Your task to perform on an android device: turn off notifications settings in the gmail app Image 0: 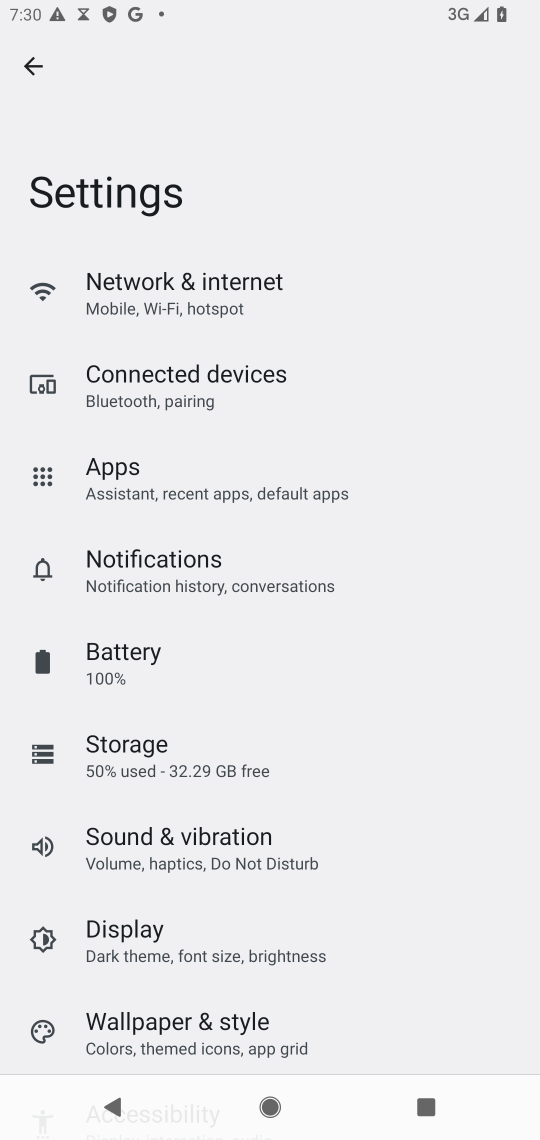
Step 0: press home button
Your task to perform on an android device: turn off notifications settings in the gmail app Image 1: 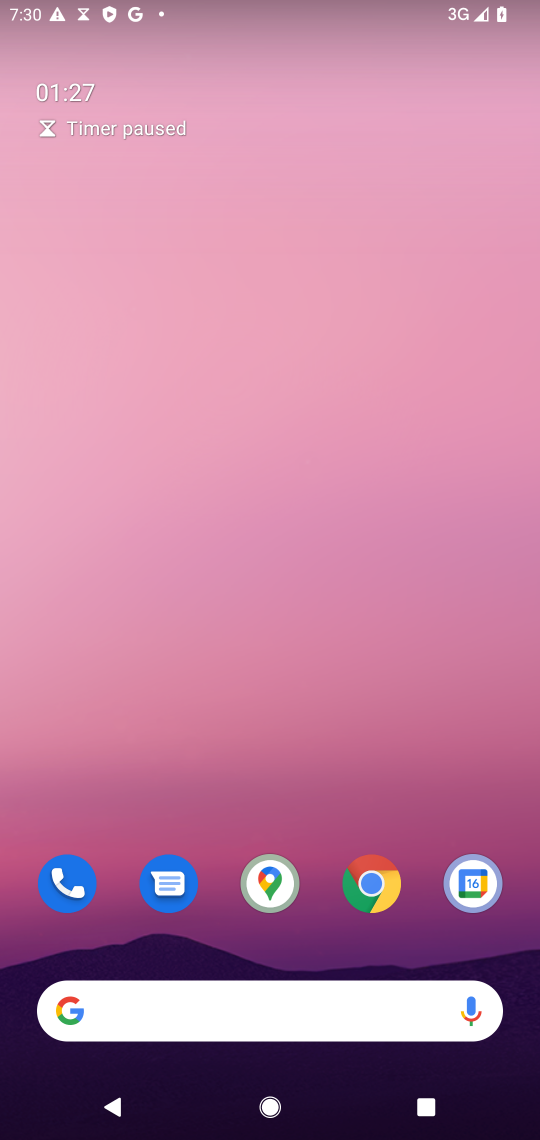
Step 1: drag from (187, 1023) to (204, 361)
Your task to perform on an android device: turn off notifications settings in the gmail app Image 2: 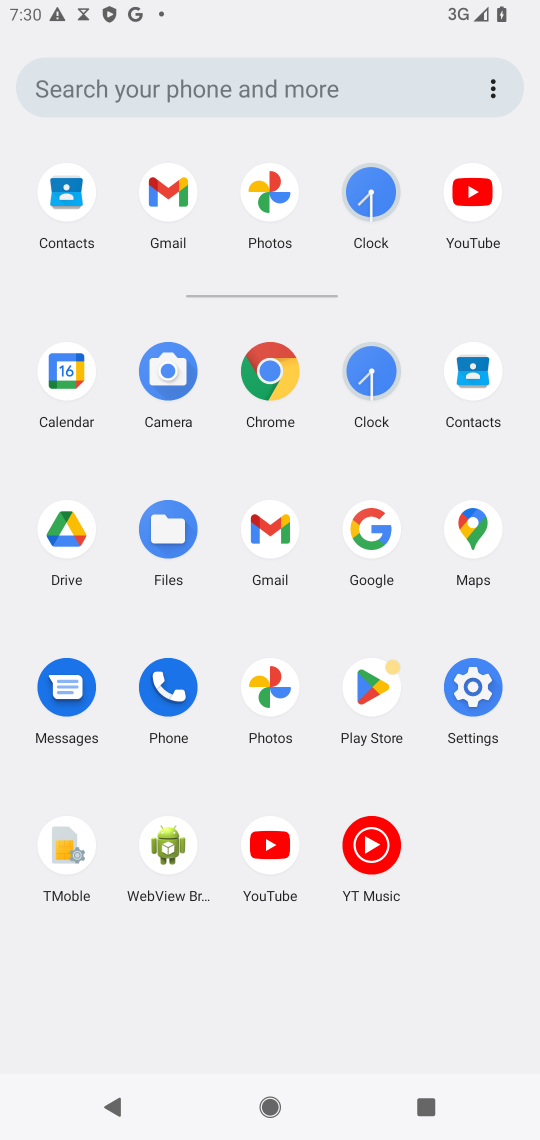
Step 2: click (168, 187)
Your task to perform on an android device: turn off notifications settings in the gmail app Image 3: 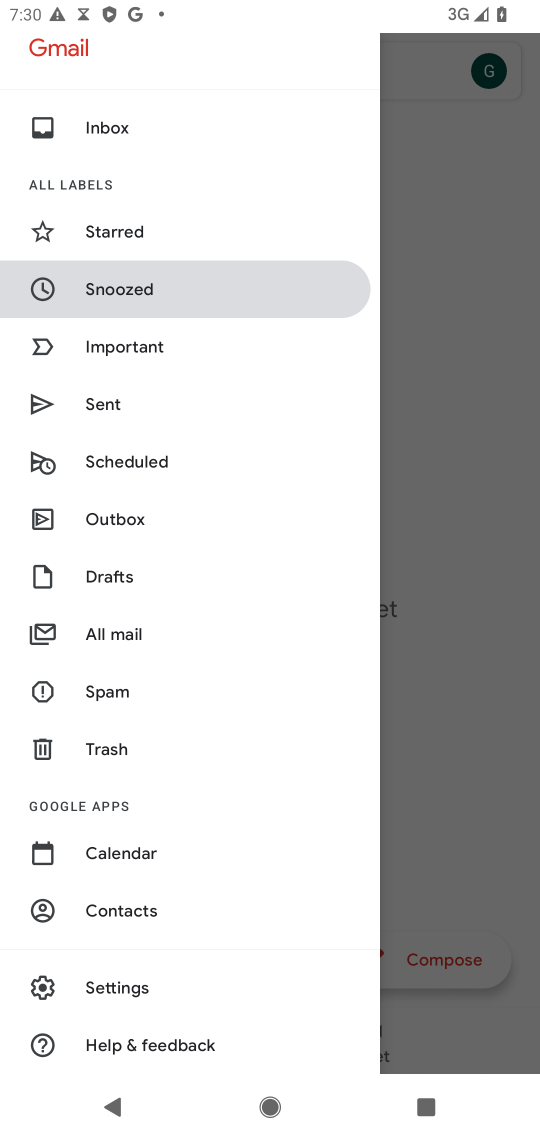
Step 3: drag from (136, 772) to (234, 614)
Your task to perform on an android device: turn off notifications settings in the gmail app Image 4: 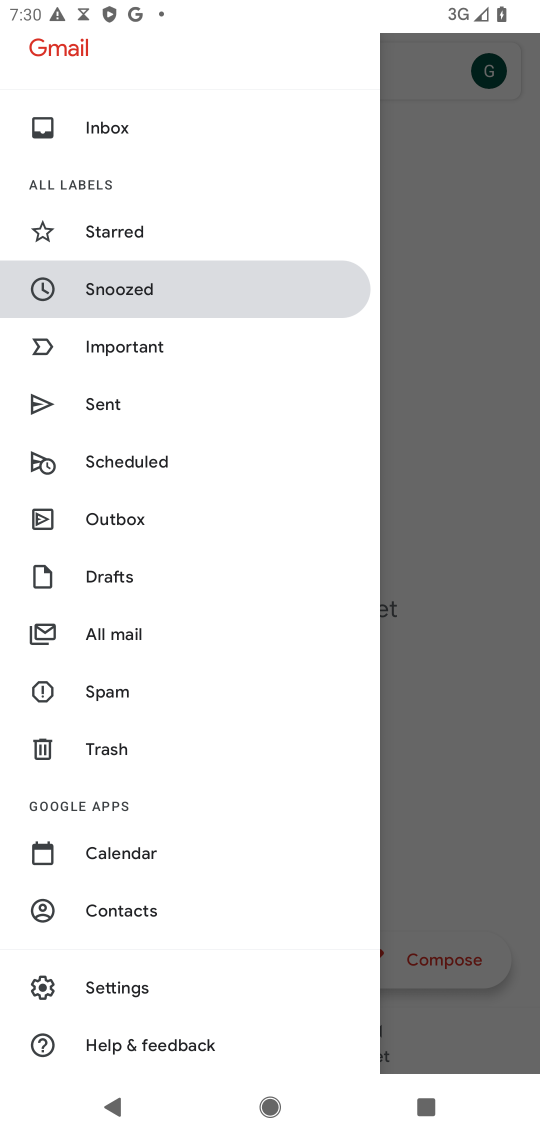
Step 4: click (131, 989)
Your task to perform on an android device: turn off notifications settings in the gmail app Image 5: 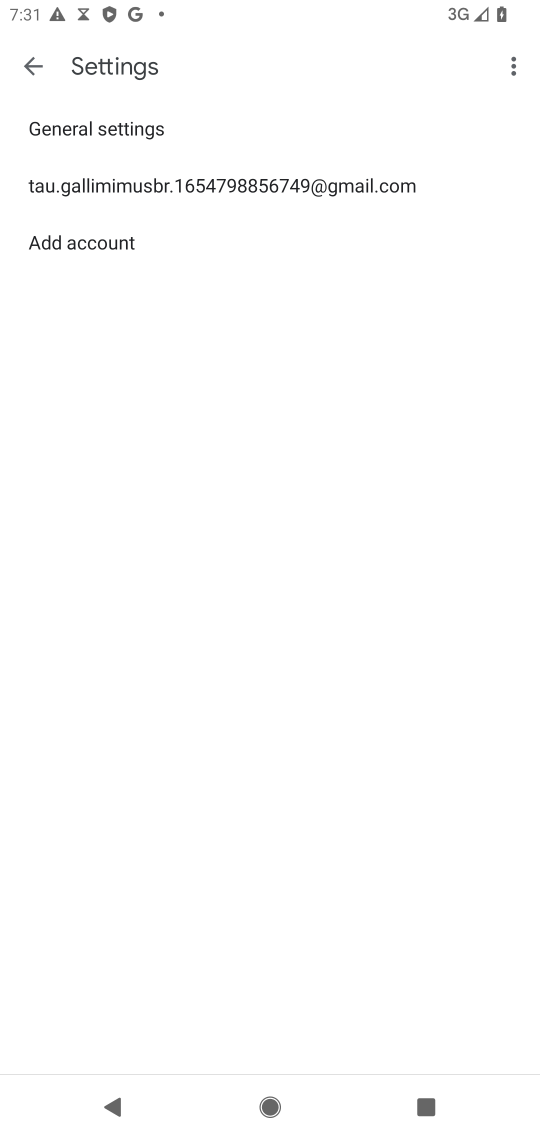
Step 5: click (217, 184)
Your task to perform on an android device: turn off notifications settings in the gmail app Image 6: 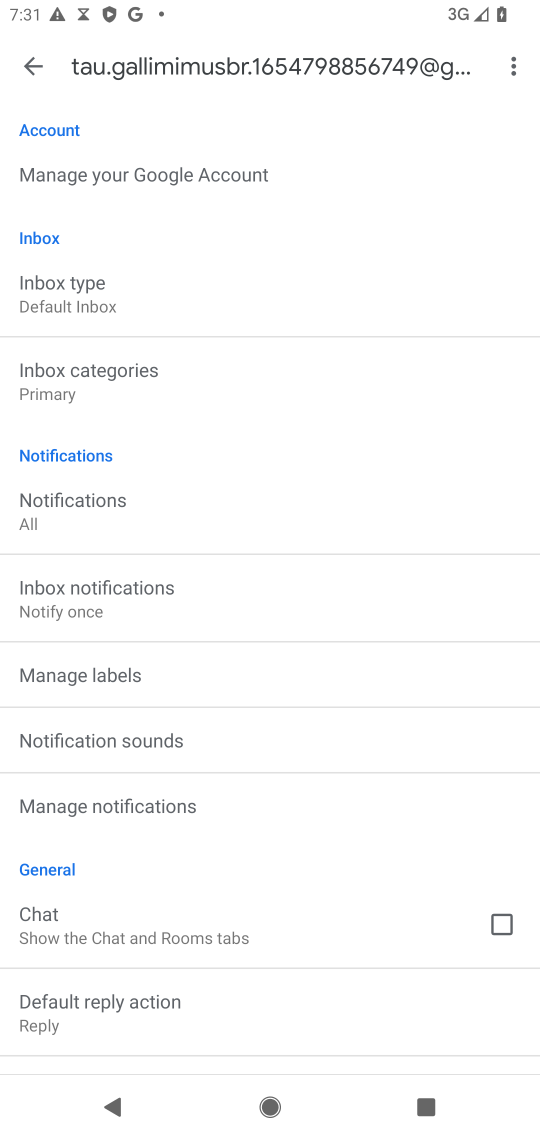
Step 6: click (167, 815)
Your task to perform on an android device: turn off notifications settings in the gmail app Image 7: 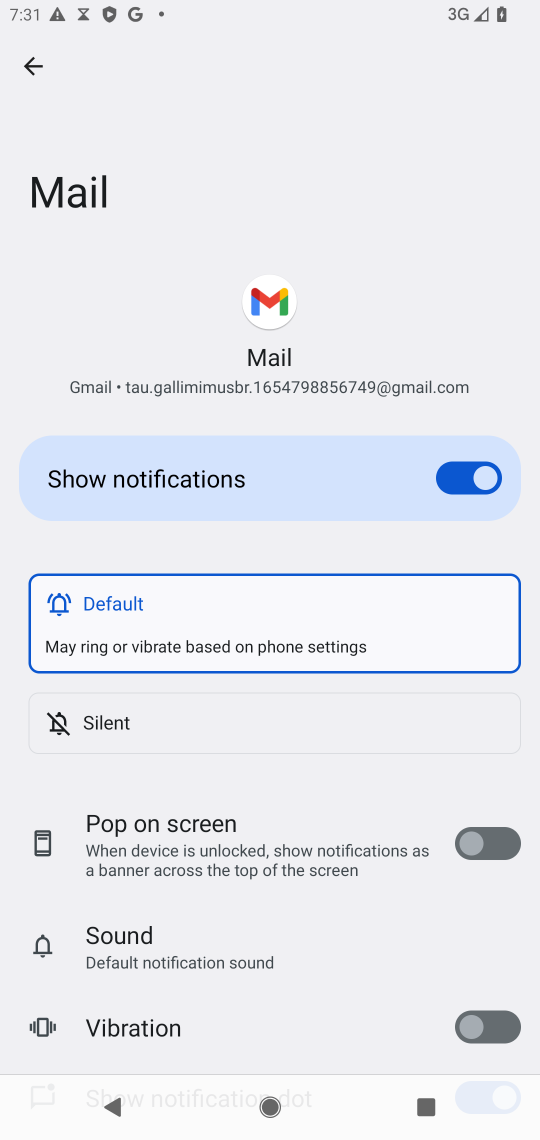
Step 7: click (444, 473)
Your task to perform on an android device: turn off notifications settings in the gmail app Image 8: 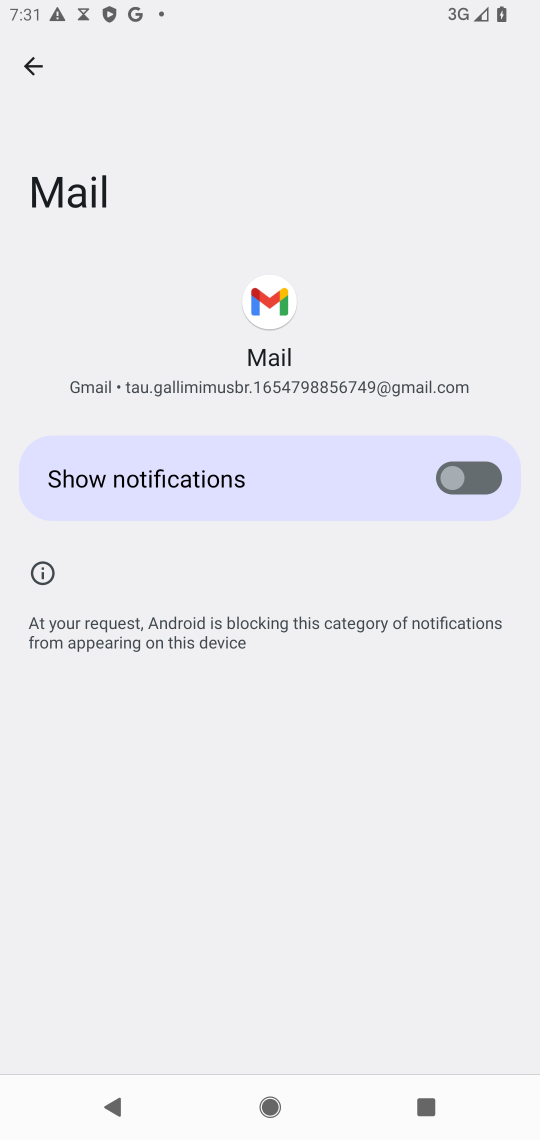
Step 8: task complete